Your task to perform on an android device: manage bookmarks in the chrome app Image 0: 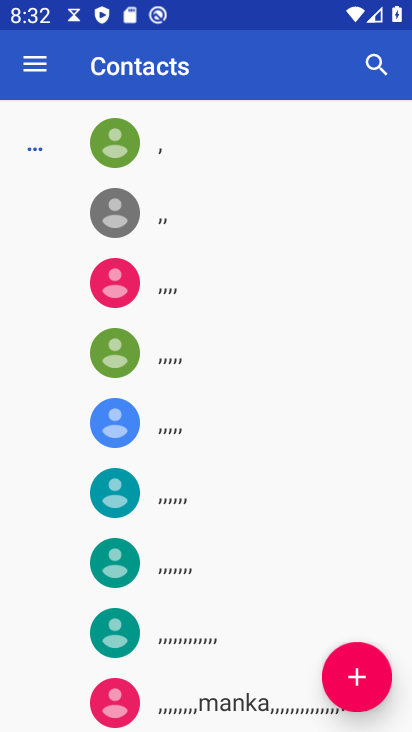
Step 0: press home button
Your task to perform on an android device: manage bookmarks in the chrome app Image 1: 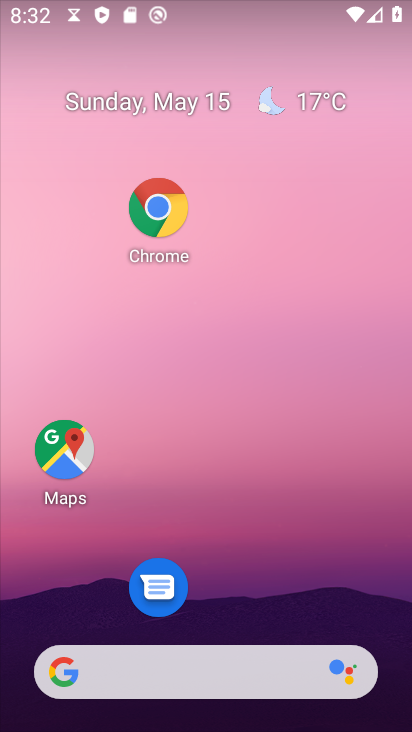
Step 1: drag from (354, 644) to (48, 78)
Your task to perform on an android device: manage bookmarks in the chrome app Image 2: 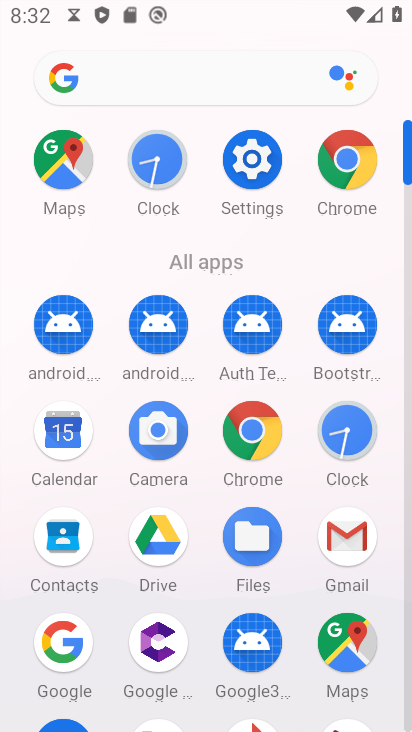
Step 2: click (354, 174)
Your task to perform on an android device: manage bookmarks in the chrome app Image 3: 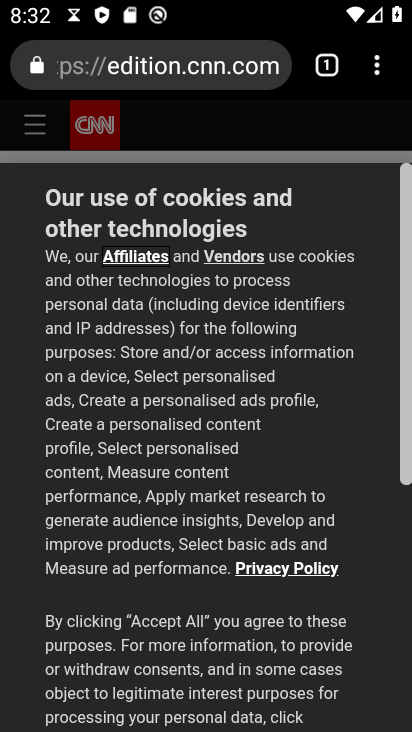
Step 3: drag from (377, 57) to (177, 243)
Your task to perform on an android device: manage bookmarks in the chrome app Image 4: 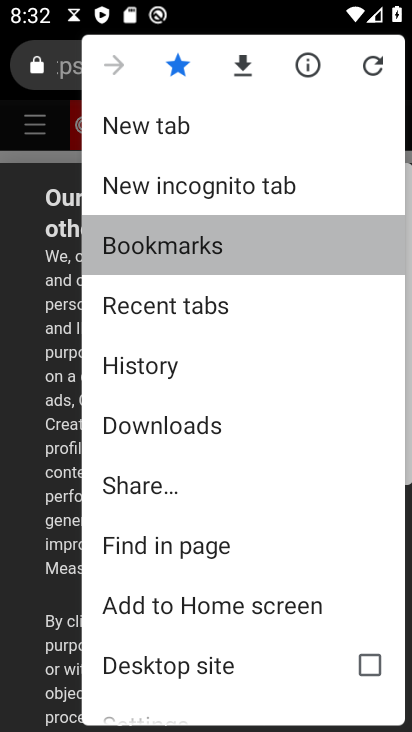
Step 4: click (177, 243)
Your task to perform on an android device: manage bookmarks in the chrome app Image 5: 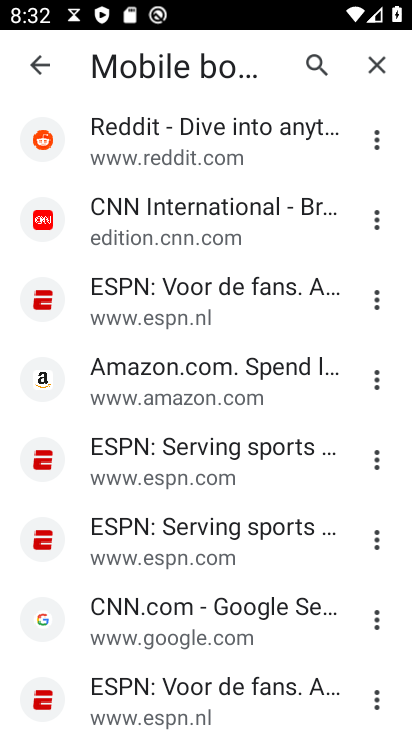
Step 5: click (374, 136)
Your task to perform on an android device: manage bookmarks in the chrome app Image 6: 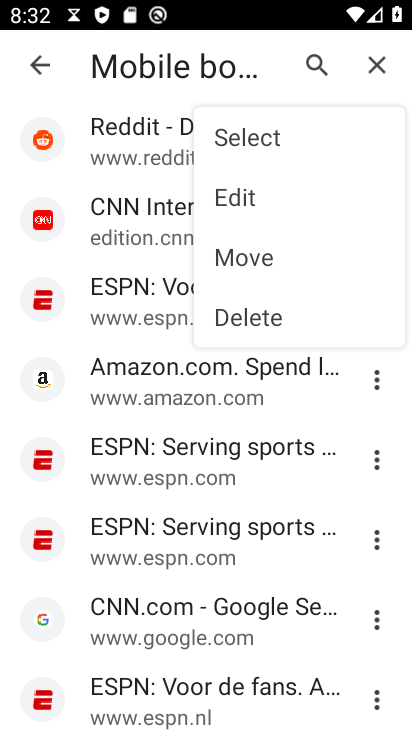
Step 6: click (376, 132)
Your task to perform on an android device: manage bookmarks in the chrome app Image 7: 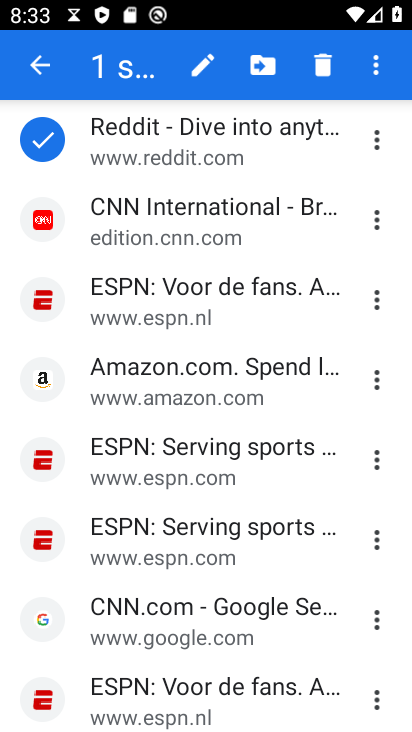
Step 7: click (318, 61)
Your task to perform on an android device: manage bookmarks in the chrome app Image 8: 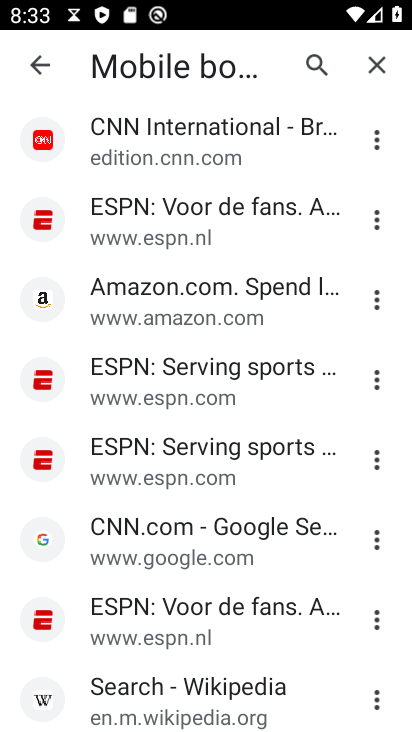
Step 8: task complete